Your task to perform on an android device: clear all cookies in the chrome app Image 0: 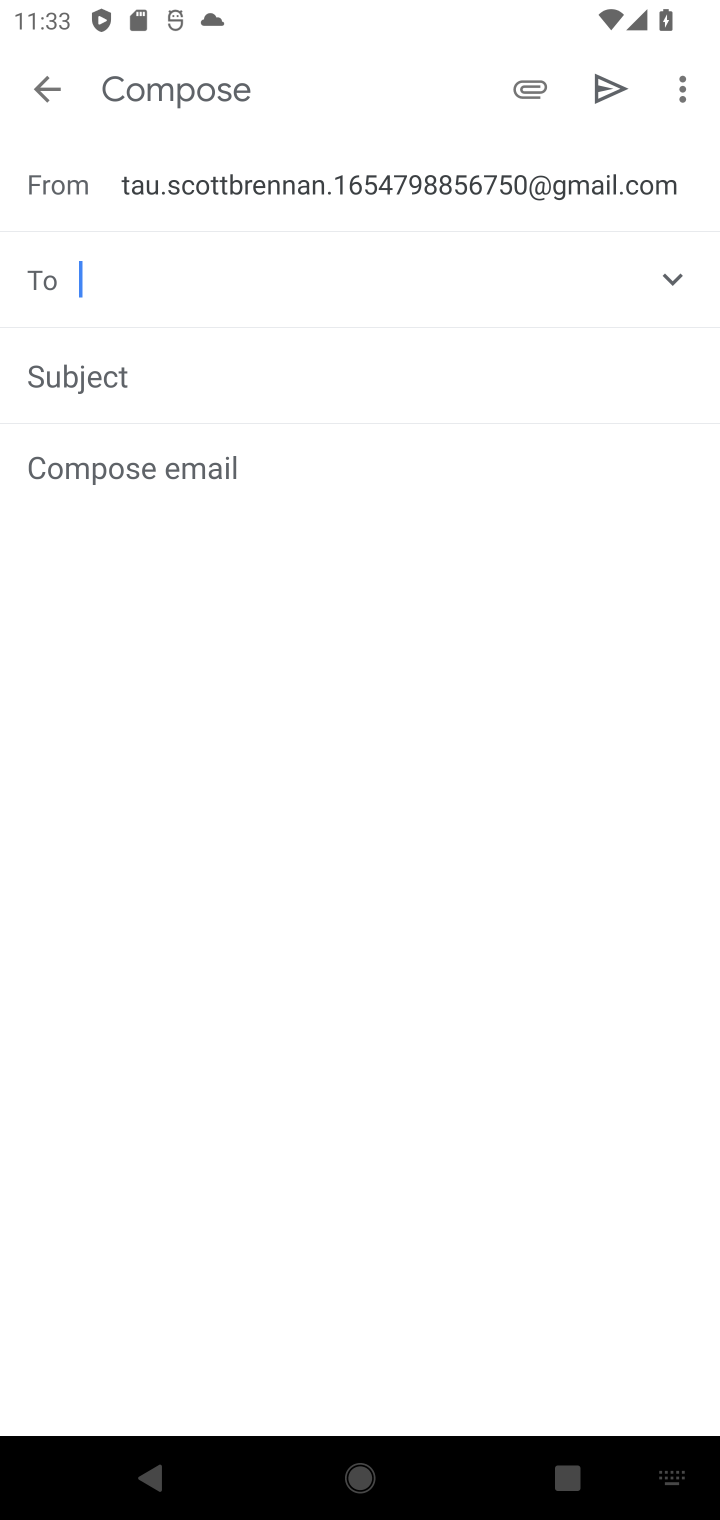
Step 0: press home button
Your task to perform on an android device: clear all cookies in the chrome app Image 1: 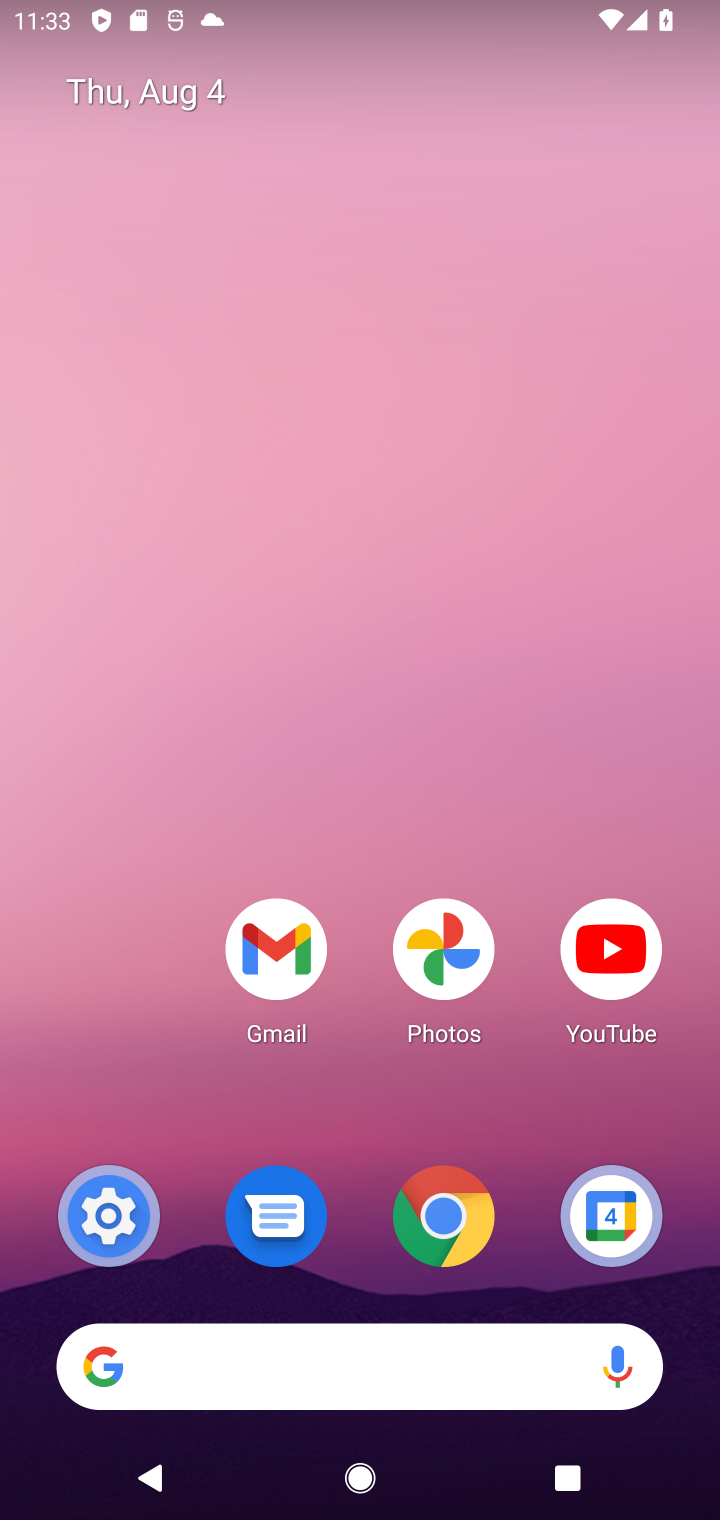
Step 1: drag from (369, 1270) to (350, 330)
Your task to perform on an android device: clear all cookies in the chrome app Image 2: 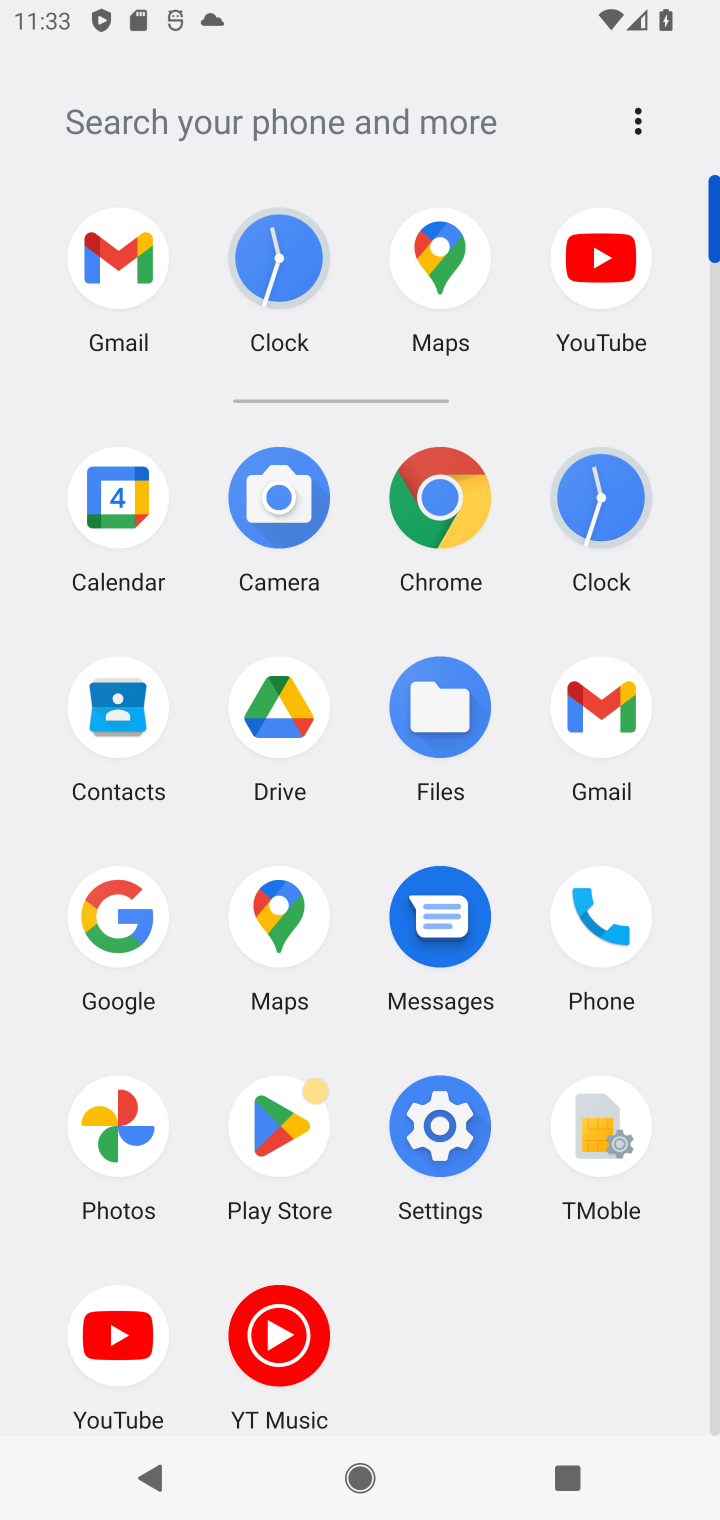
Step 2: click (439, 502)
Your task to perform on an android device: clear all cookies in the chrome app Image 3: 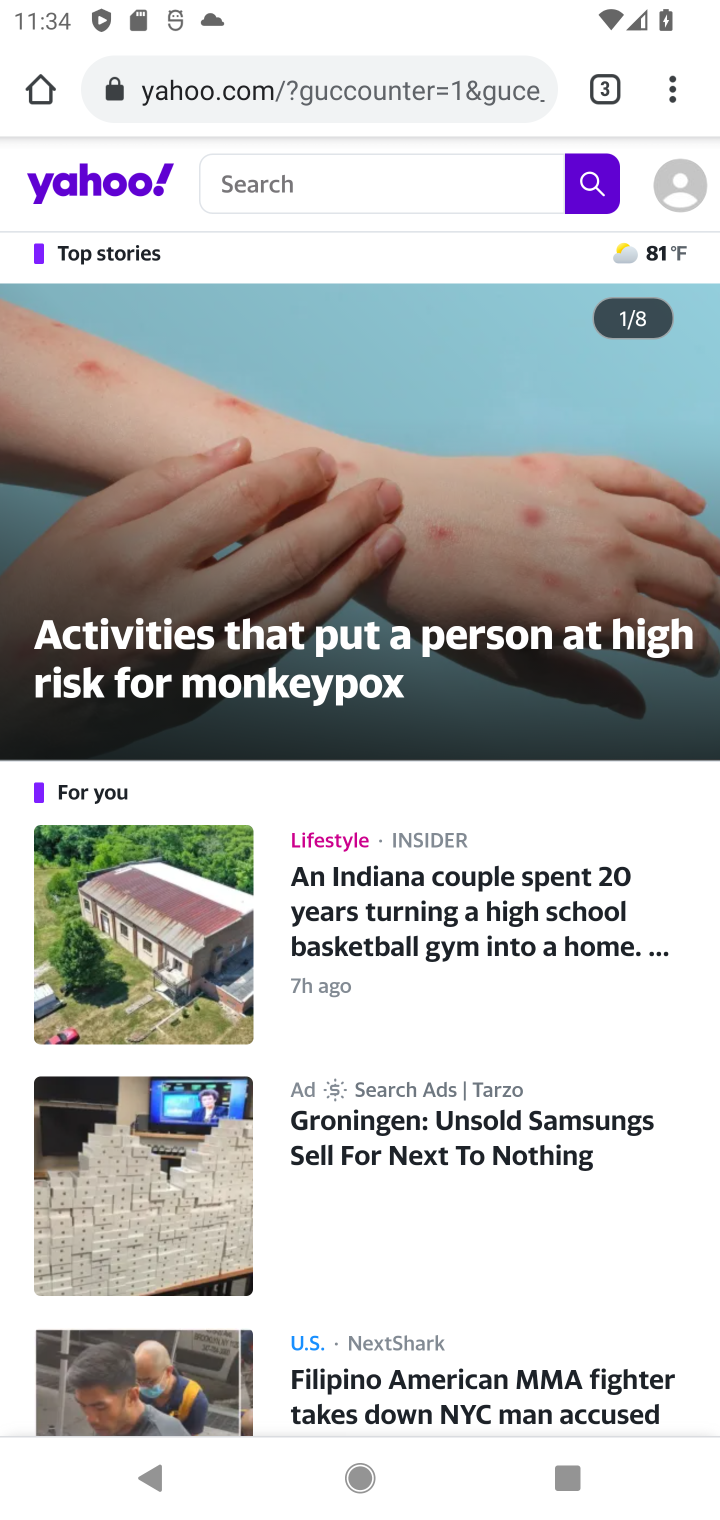
Step 3: click (669, 90)
Your task to perform on an android device: clear all cookies in the chrome app Image 4: 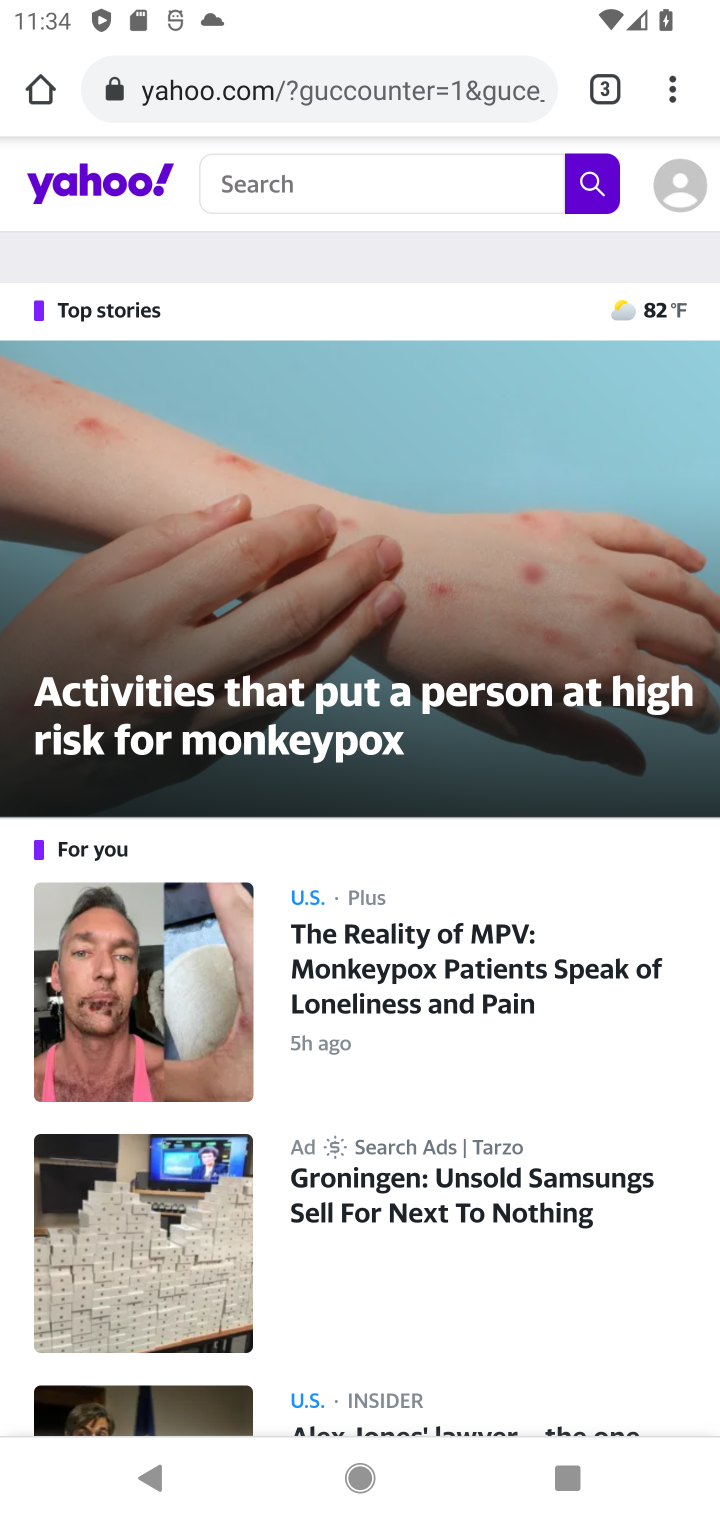
Step 4: drag from (669, 90) to (503, 1169)
Your task to perform on an android device: clear all cookies in the chrome app Image 5: 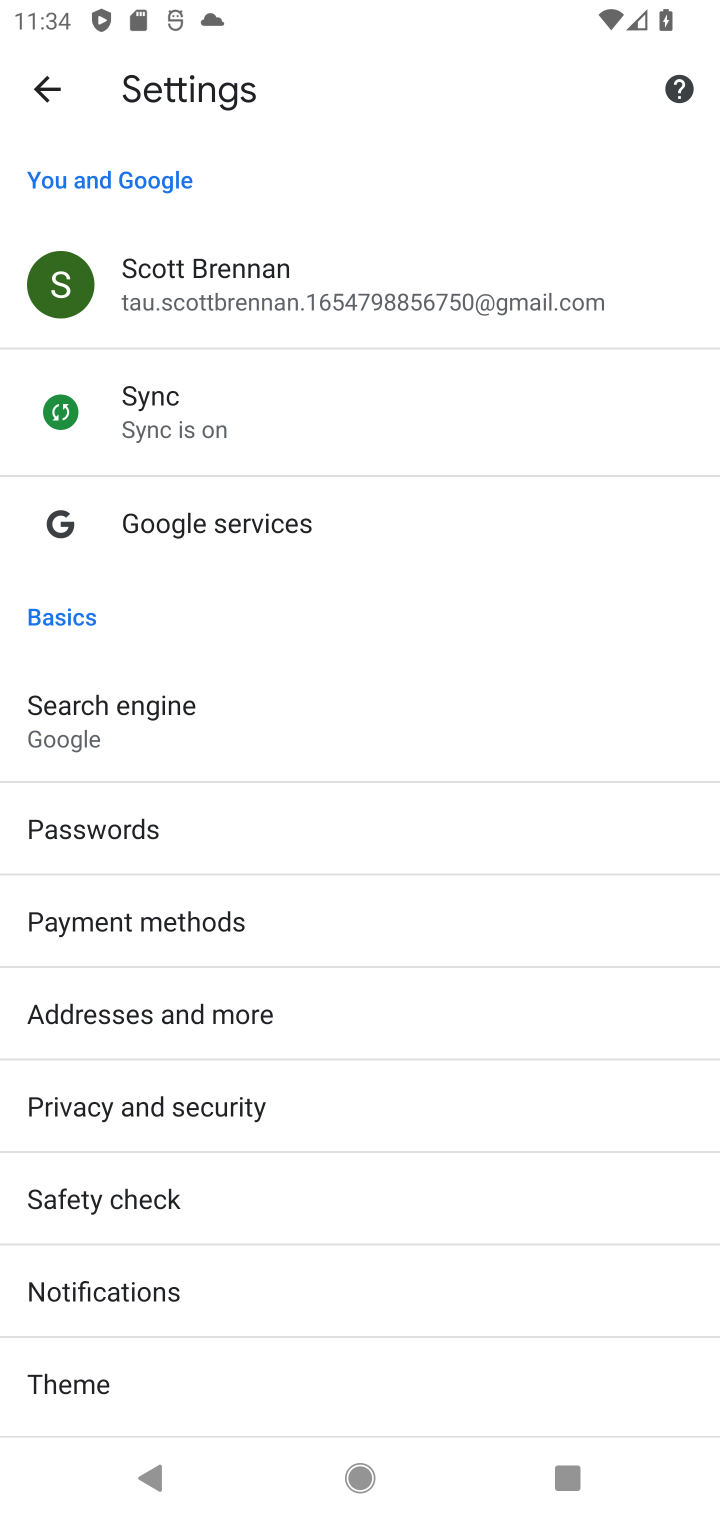
Step 5: drag from (147, 1255) to (271, 907)
Your task to perform on an android device: clear all cookies in the chrome app Image 6: 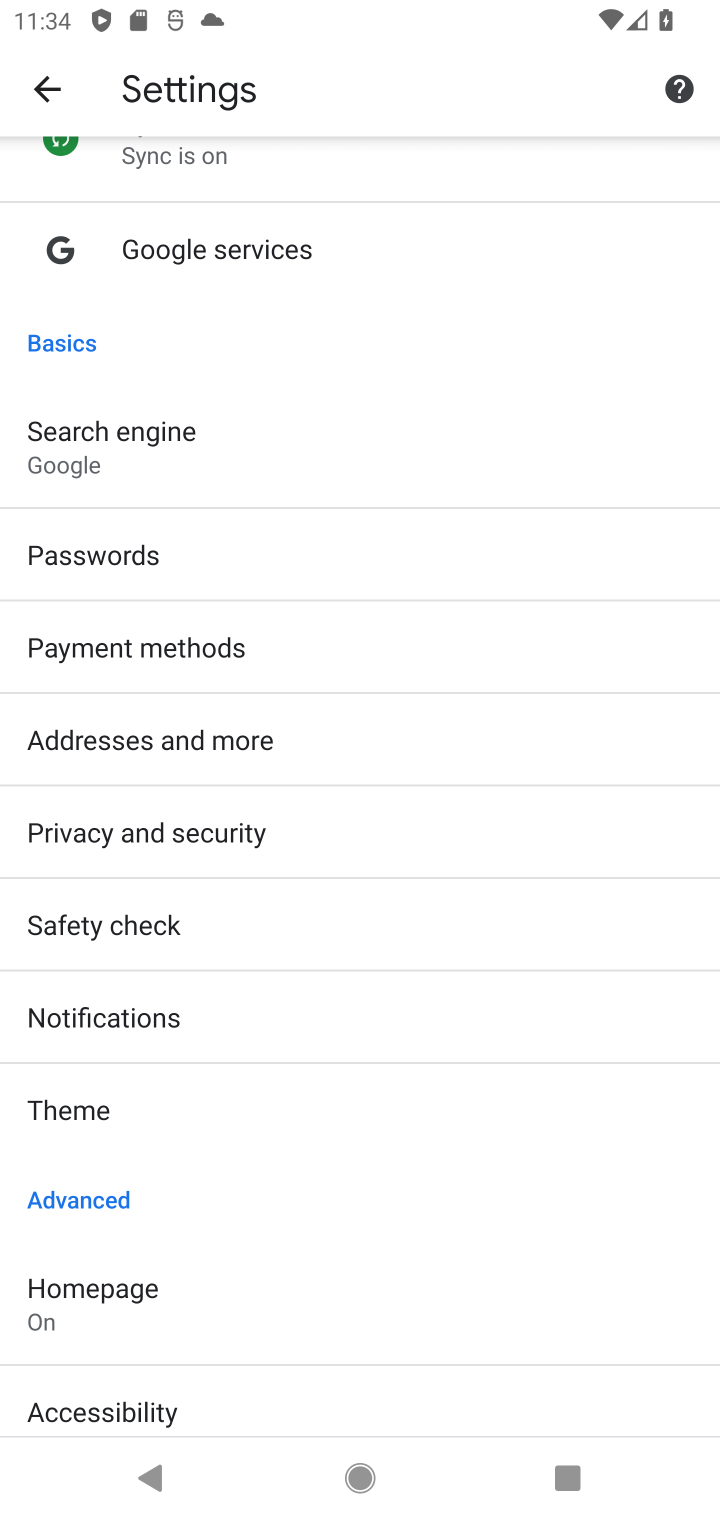
Step 6: click (236, 841)
Your task to perform on an android device: clear all cookies in the chrome app Image 7: 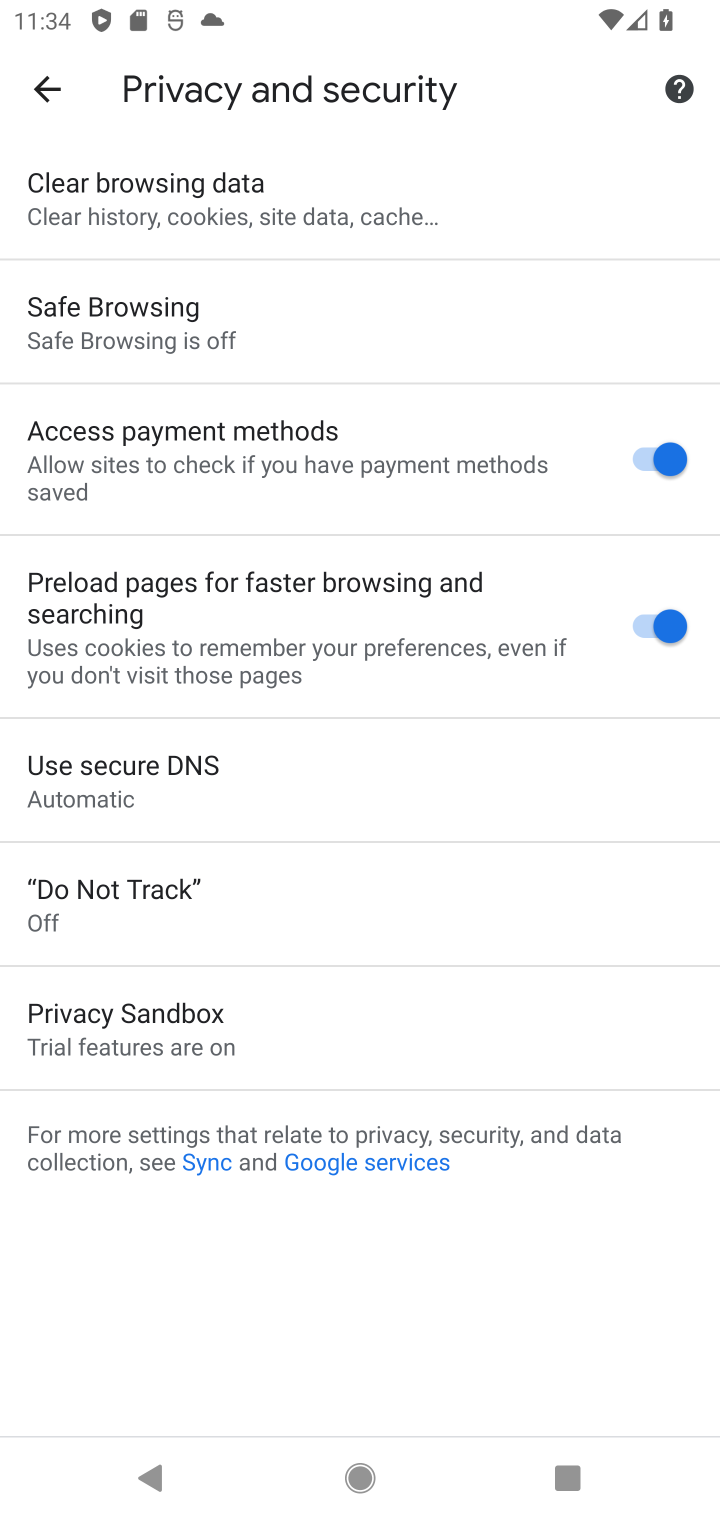
Step 7: click (267, 217)
Your task to perform on an android device: clear all cookies in the chrome app Image 8: 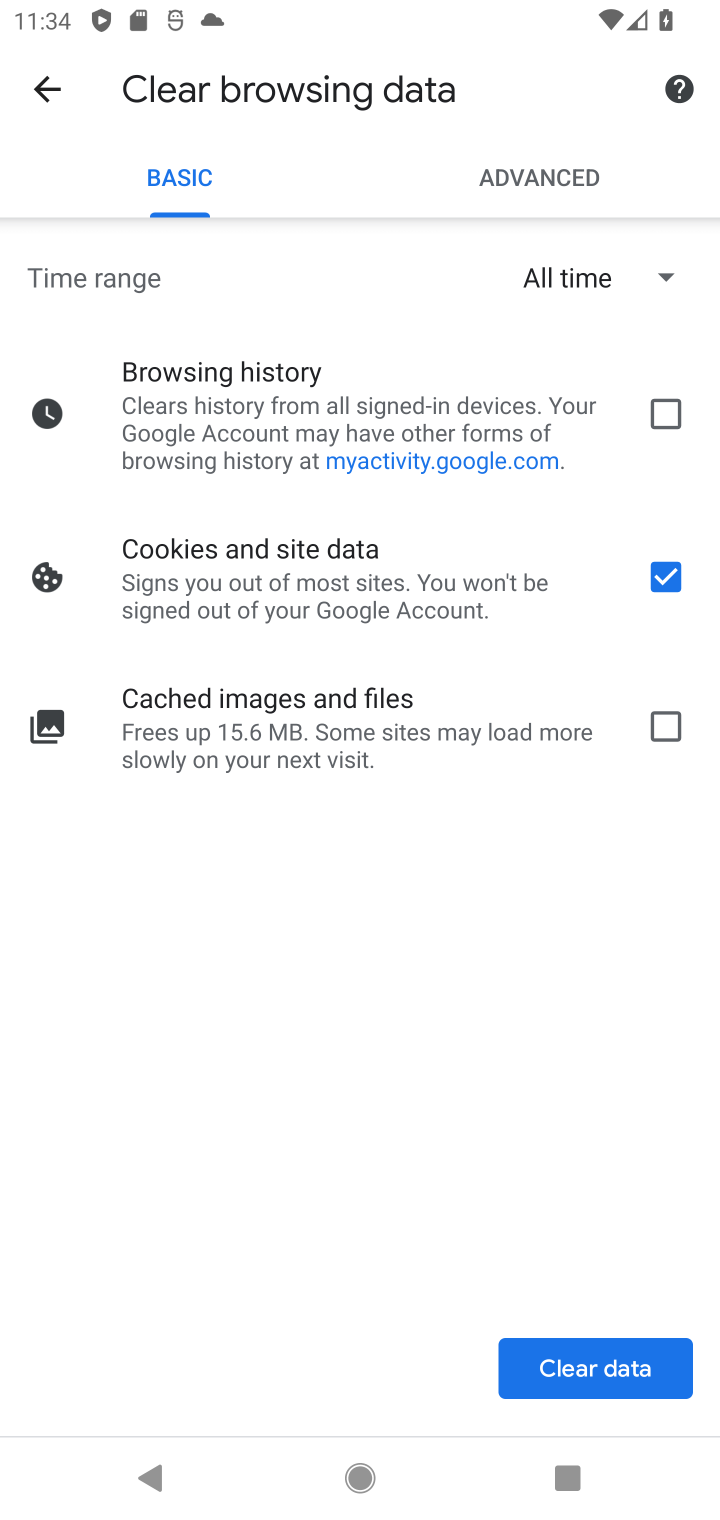
Step 8: click (632, 1380)
Your task to perform on an android device: clear all cookies in the chrome app Image 9: 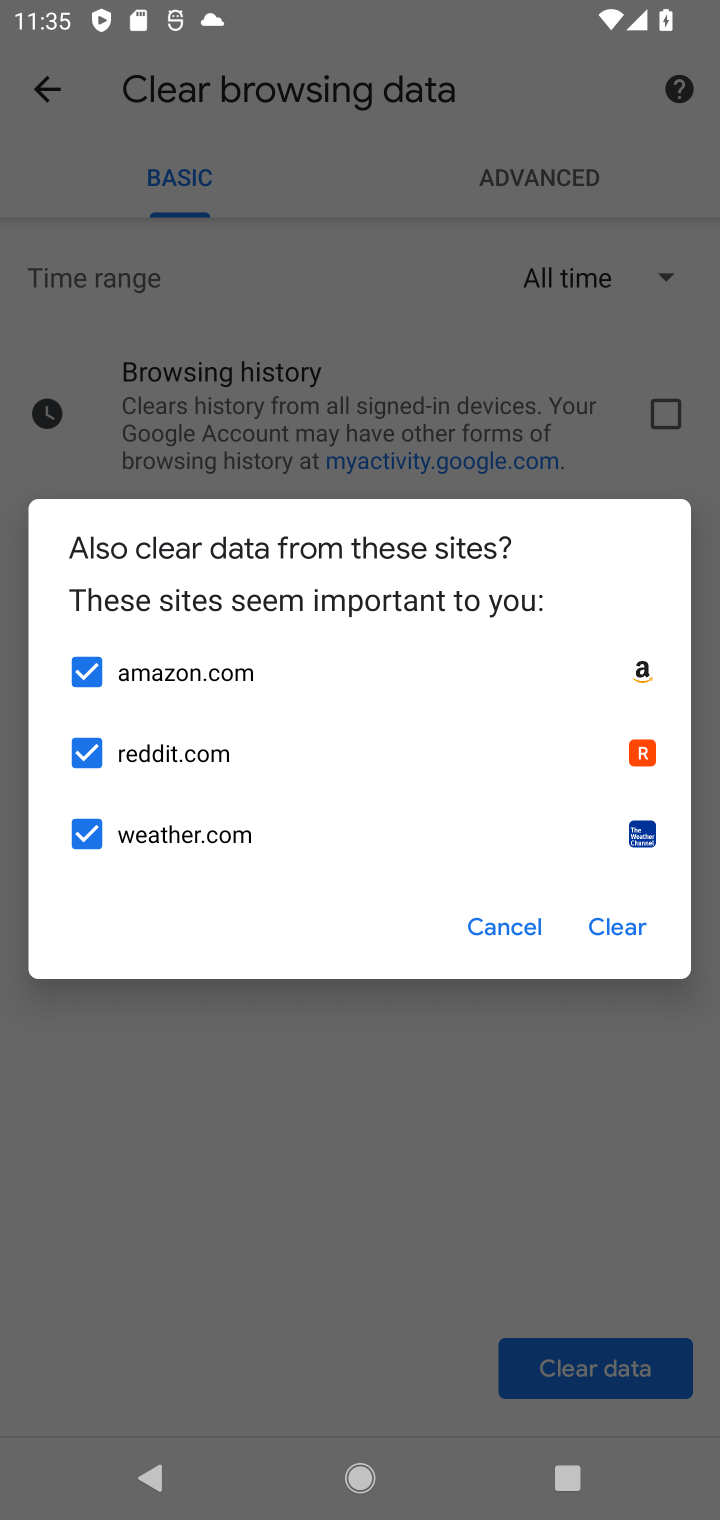
Step 9: click (621, 927)
Your task to perform on an android device: clear all cookies in the chrome app Image 10: 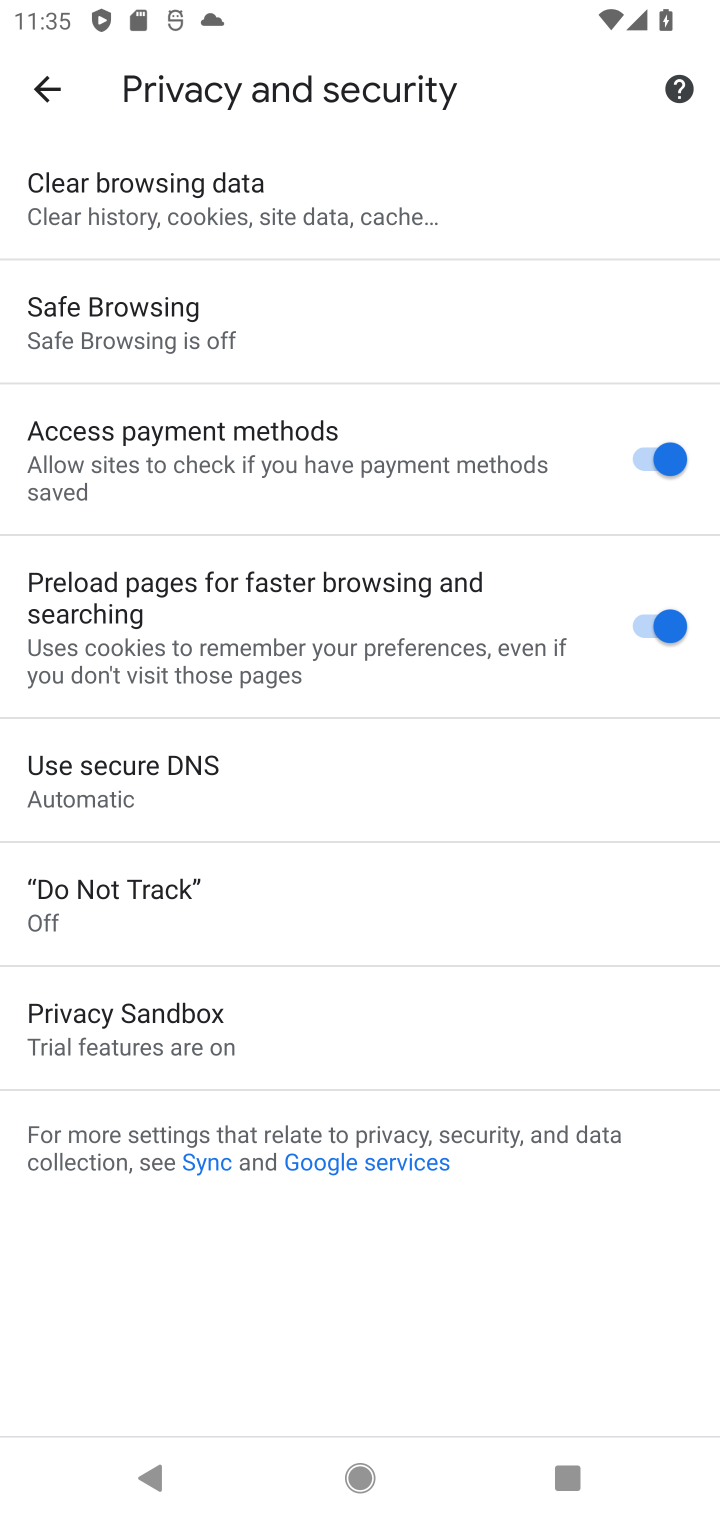
Step 10: task complete